Your task to perform on an android device: visit the assistant section in the google photos Image 0: 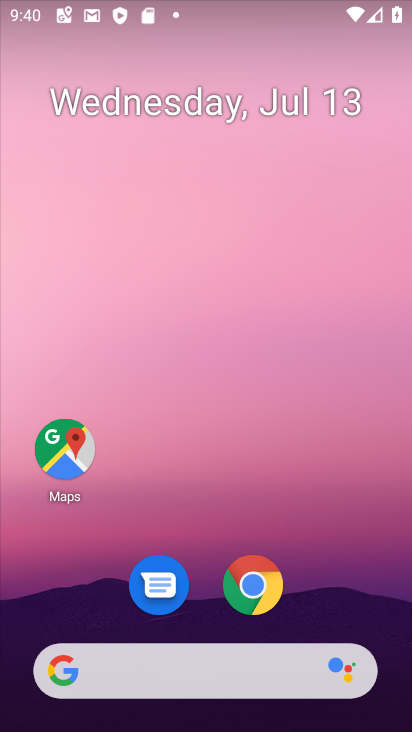
Step 0: drag from (299, 528) to (285, 35)
Your task to perform on an android device: visit the assistant section in the google photos Image 1: 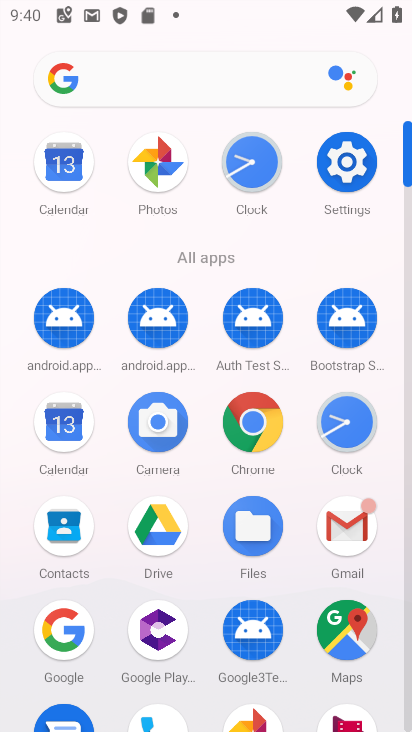
Step 1: click (159, 162)
Your task to perform on an android device: visit the assistant section in the google photos Image 2: 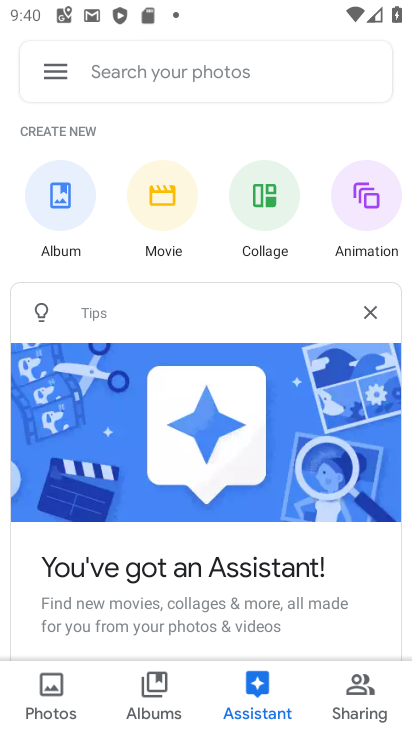
Step 2: click (254, 685)
Your task to perform on an android device: visit the assistant section in the google photos Image 3: 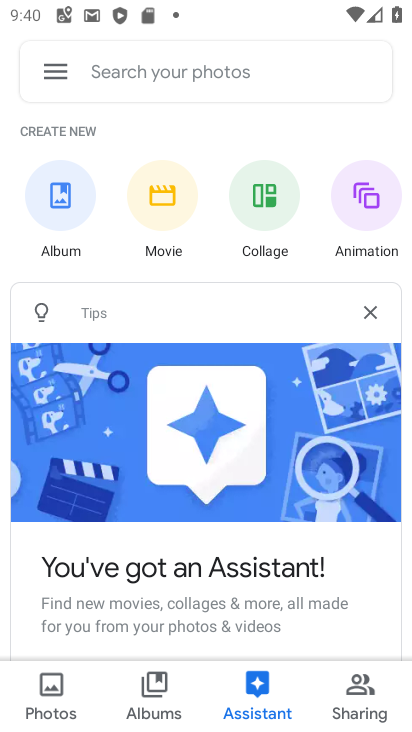
Step 3: task complete